Your task to perform on an android device: Go to wifi settings Image 0: 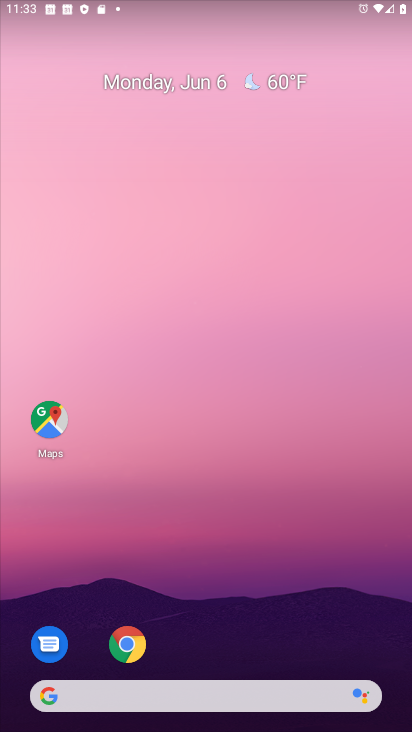
Step 0: drag from (165, 724) to (190, 14)
Your task to perform on an android device: Go to wifi settings Image 1: 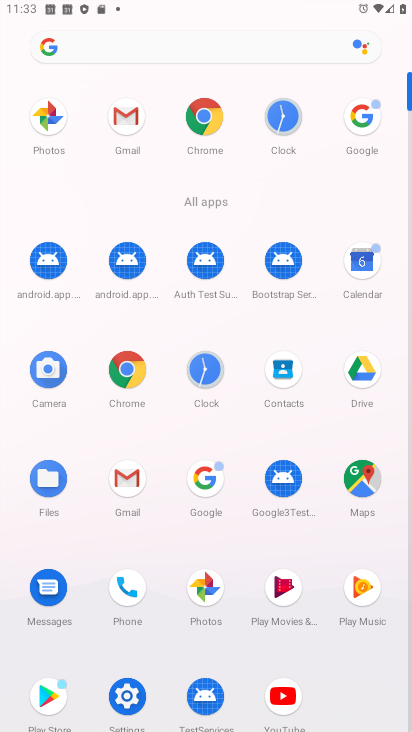
Step 1: click (131, 697)
Your task to perform on an android device: Go to wifi settings Image 2: 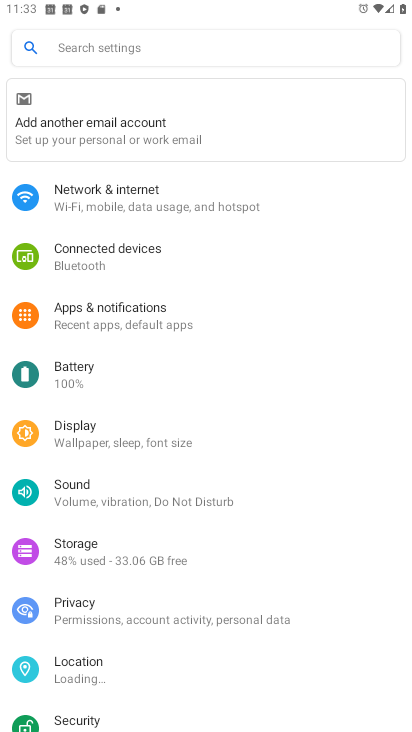
Step 2: click (174, 213)
Your task to perform on an android device: Go to wifi settings Image 3: 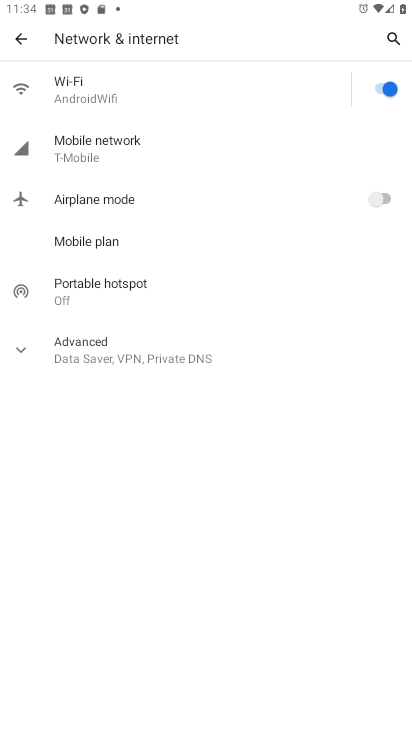
Step 3: click (166, 92)
Your task to perform on an android device: Go to wifi settings Image 4: 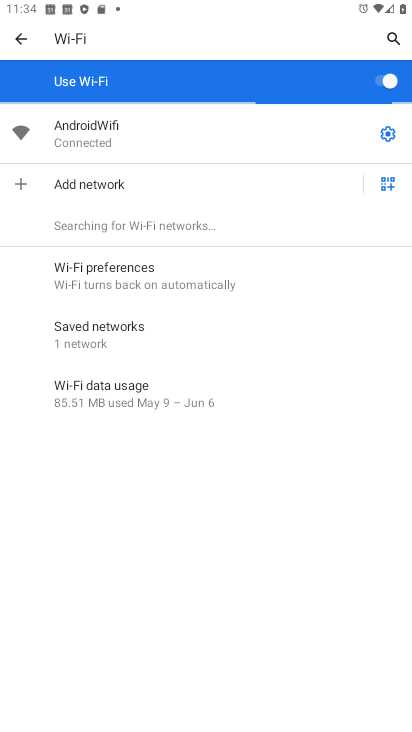
Step 4: task complete